Your task to perform on an android device: Go to Wikipedia Image 0: 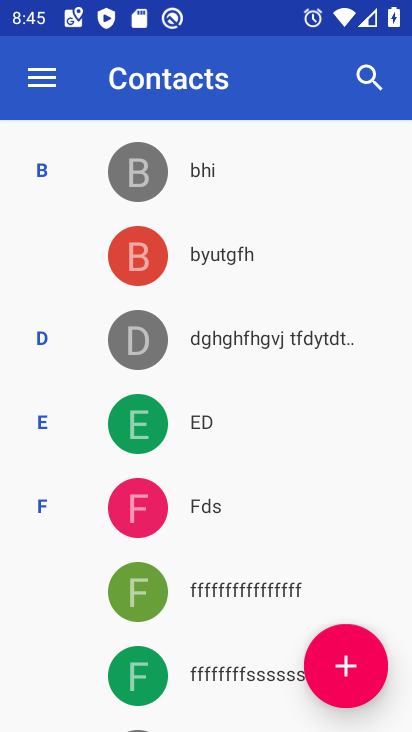
Step 0: press home button
Your task to perform on an android device: Go to Wikipedia Image 1: 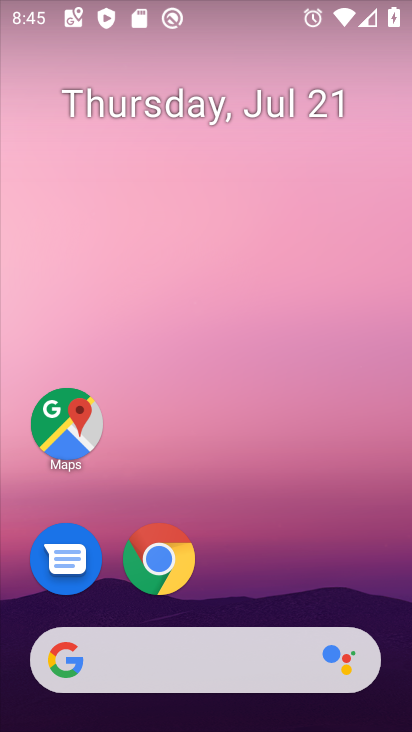
Step 1: drag from (354, 577) to (357, 140)
Your task to perform on an android device: Go to Wikipedia Image 2: 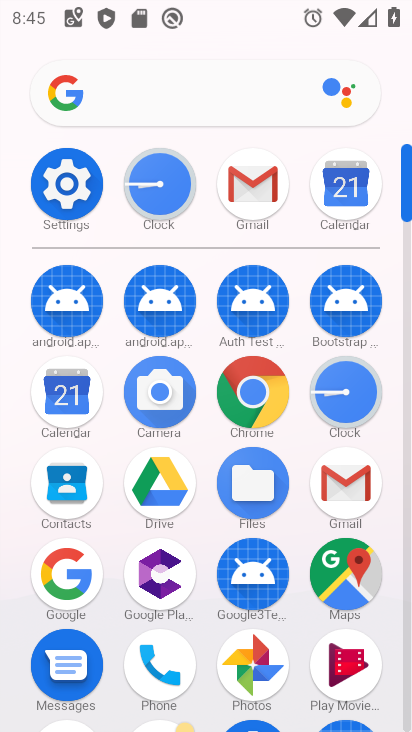
Step 2: click (253, 398)
Your task to perform on an android device: Go to Wikipedia Image 3: 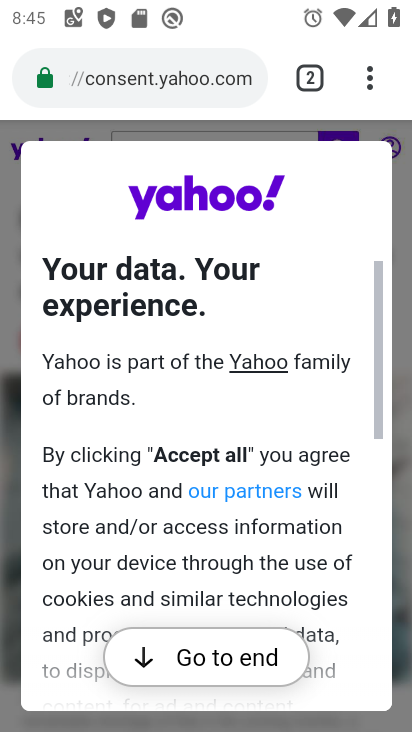
Step 3: click (181, 91)
Your task to perform on an android device: Go to Wikipedia Image 4: 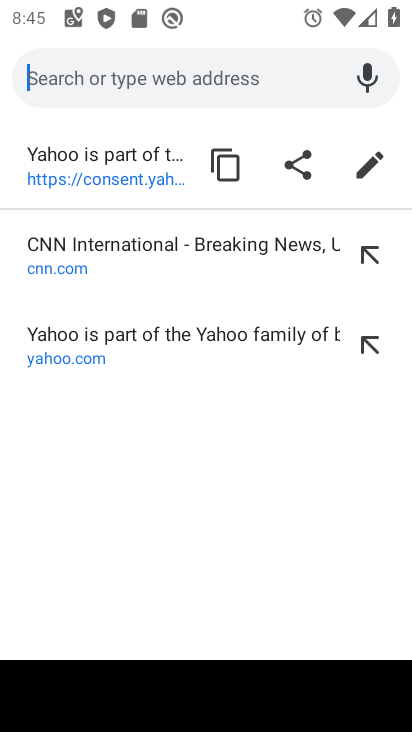
Step 4: type "wikipedia"
Your task to perform on an android device: Go to Wikipedia Image 5: 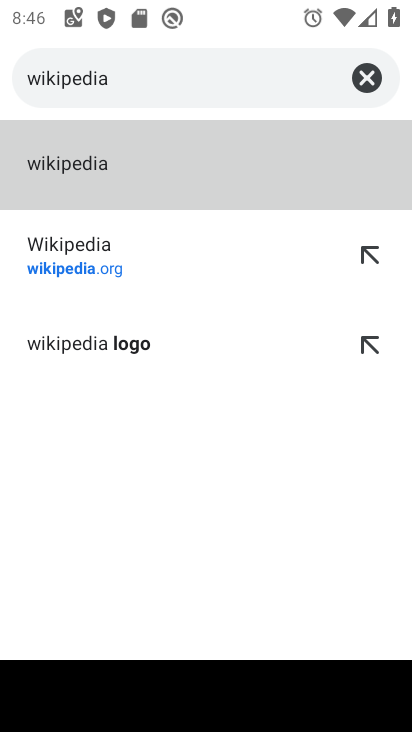
Step 5: click (366, 173)
Your task to perform on an android device: Go to Wikipedia Image 6: 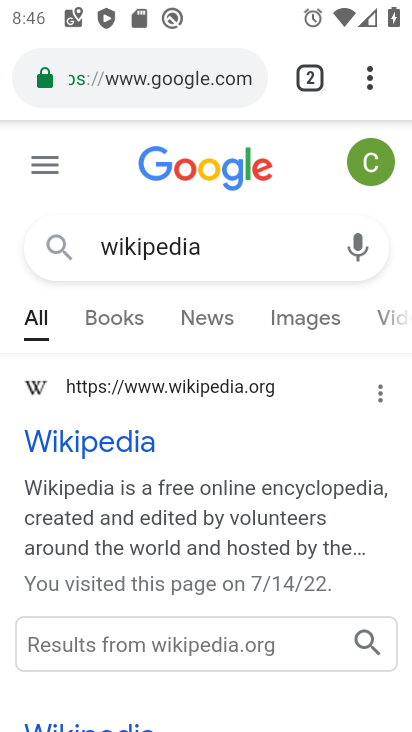
Step 6: task complete